Your task to perform on an android device: Open the web browser Image 0: 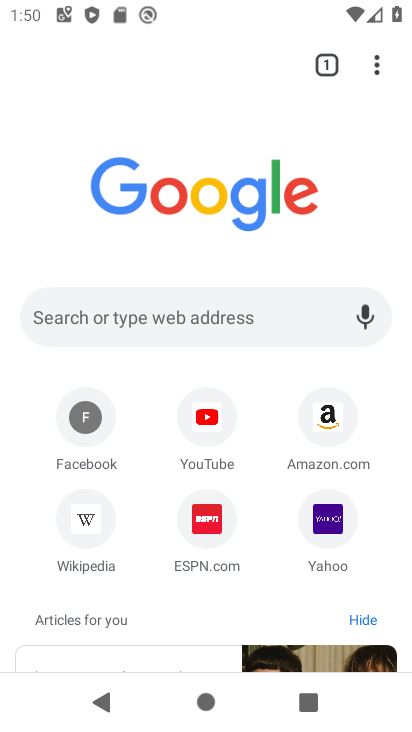
Step 0: task complete